Your task to perform on an android device: toggle priority inbox in the gmail app Image 0: 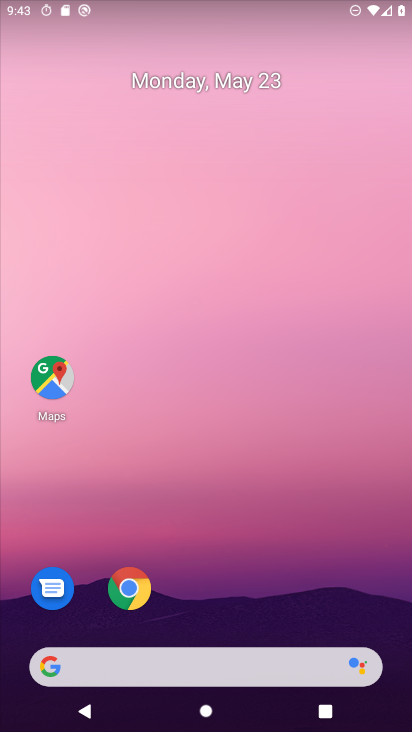
Step 0: drag from (382, 695) to (322, 321)
Your task to perform on an android device: toggle priority inbox in the gmail app Image 1: 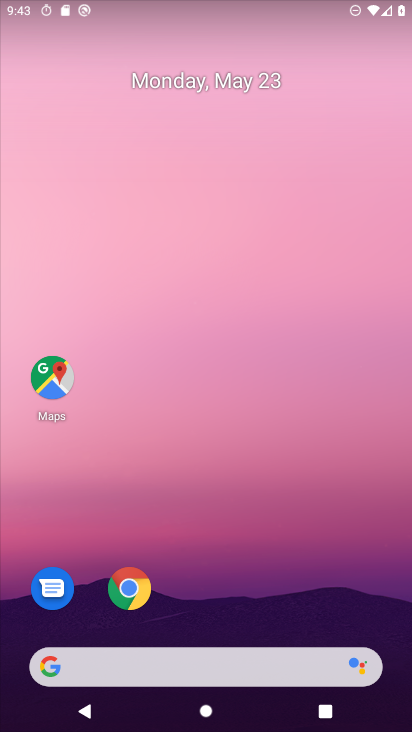
Step 1: drag from (396, 660) to (350, 238)
Your task to perform on an android device: toggle priority inbox in the gmail app Image 2: 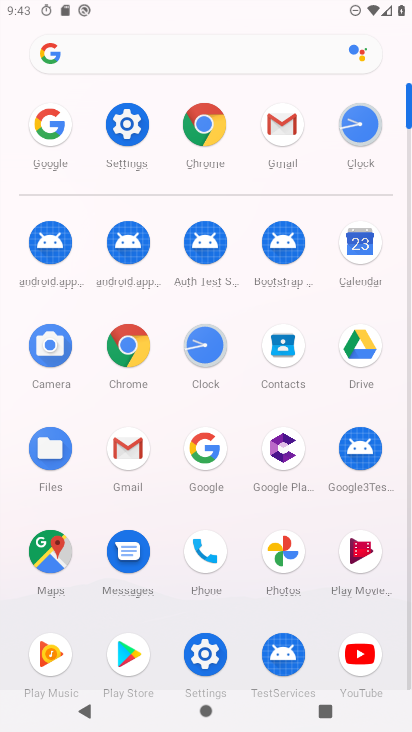
Step 2: click (139, 453)
Your task to perform on an android device: toggle priority inbox in the gmail app Image 3: 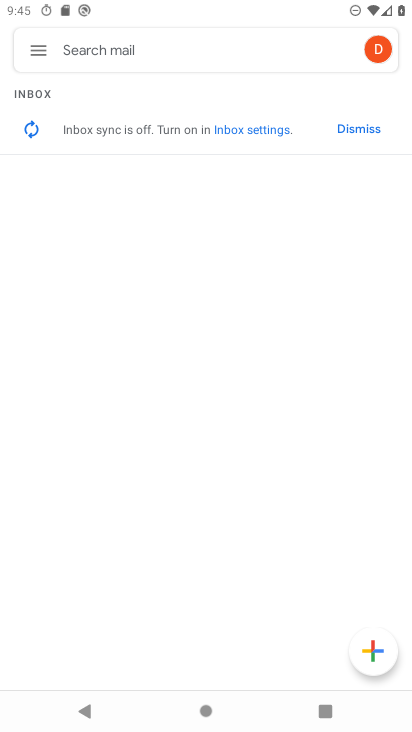
Step 3: press home button
Your task to perform on an android device: toggle priority inbox in the gmail app Image 4: 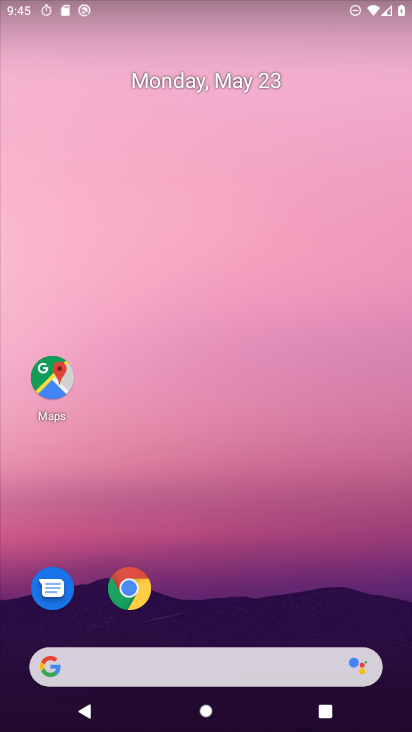
Step 4: drag from (397, 657) to (361, 243)
Your task to perform on an android device: toggle priority inbox in the gmail app Image 5: 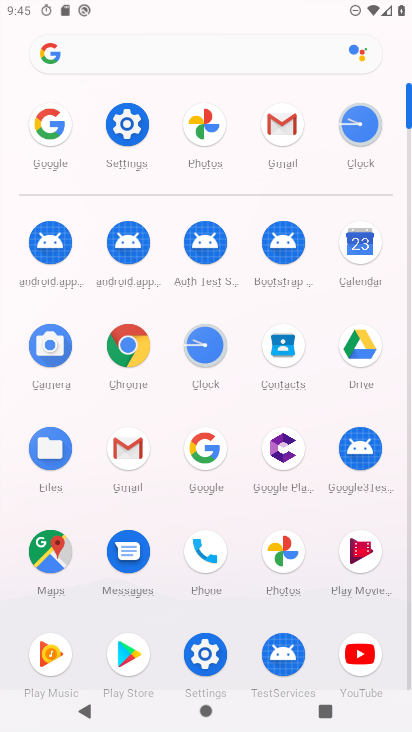
Step 5: click (131, 439)
Your task to perform on an android device: toggle priority inbox in the gmail app Image 6: 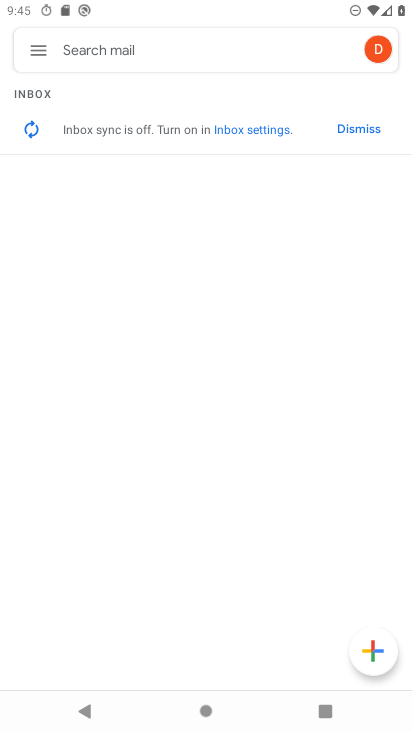
Step 6: click (35, 42)
Your task to perform on an android device: toggle priority inbox in the gmail app Image 7: 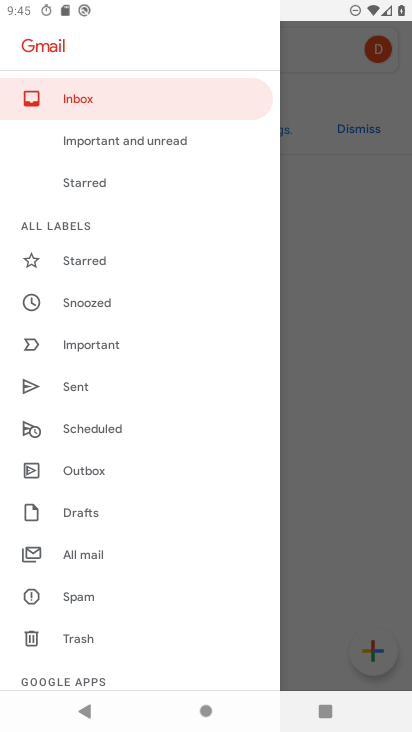
Step 7: drag from (161, 632) to (158, 349)
Your task to perform on an android device: toggle priority inbox in the gmail app Image 8: 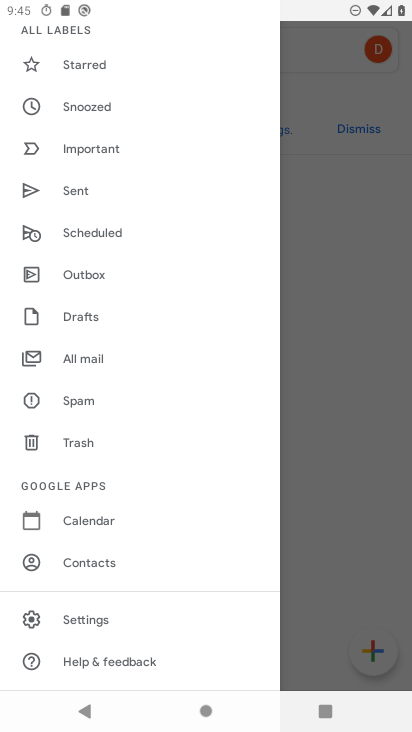
Step 8: click (92, 616)
Your task to perform on an android device: toggle priority inbox in the gmail app Image 9: 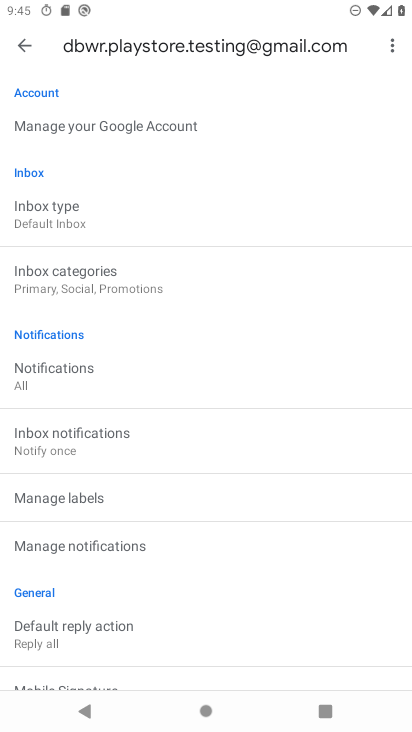
Step 9: click (35, 210)
Your task to perform on an android device: toggle priority inbox in the gmail app Image 10: 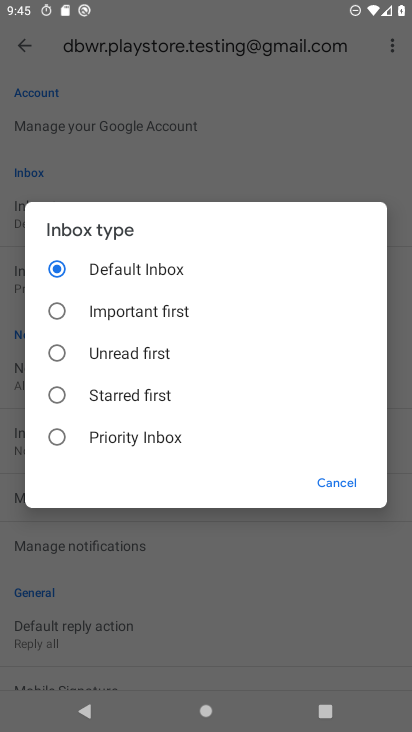
Step 10: click (63, 429)
Your task to perform on an android device: toggle priority inbox in the gmail app Image 11: 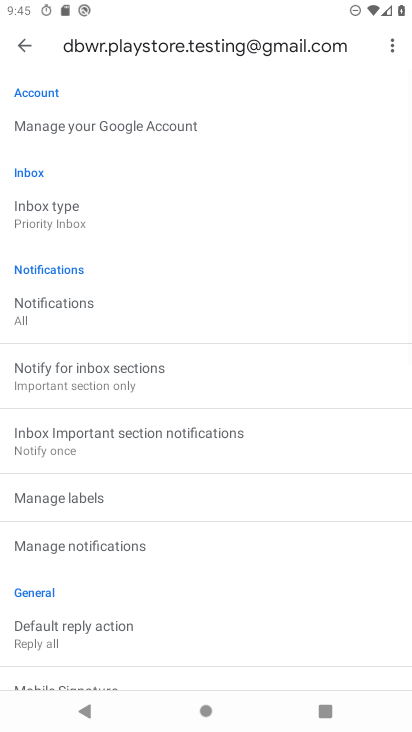
Step 11: task complete